Your task to perform on an android device: What's the weather today? Image 0: 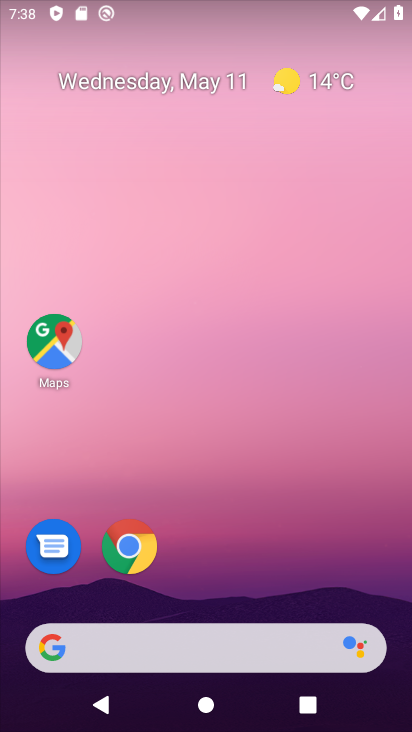
Step 0: click (335, 83)
Your task to perform on an android device: What's the weather today? Image 1: 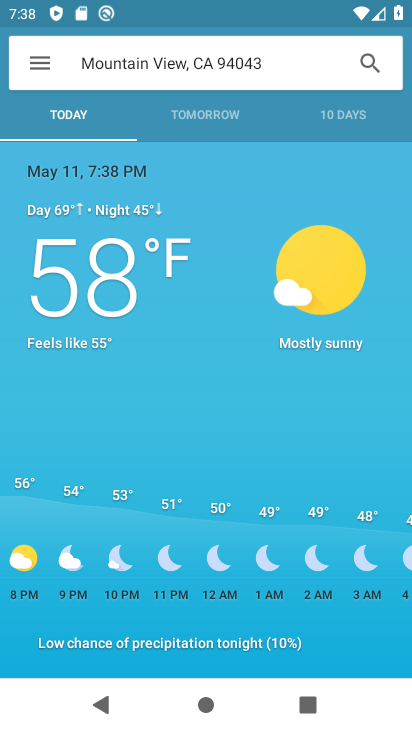
Step 1: task complete